Your task to perform on an android device: turn pop-ups off in chrome Image 0: 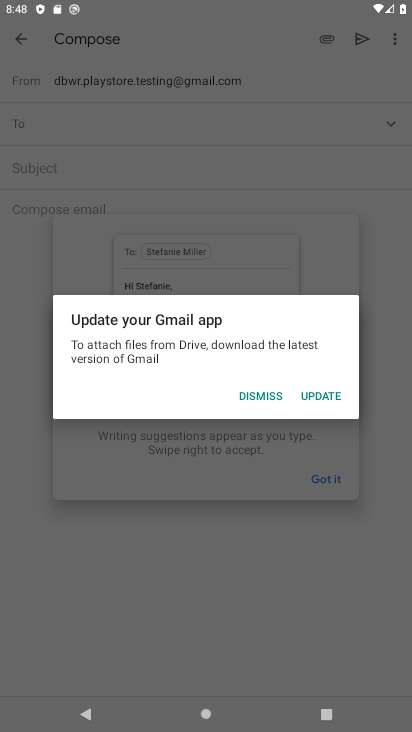
Step 0: press home button
Your task to perform on an android device: turn pop-ups off in chrome Image 1: 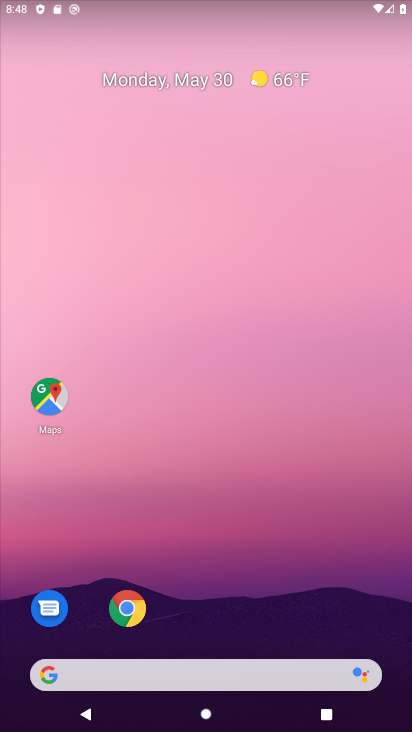
Step 1: click (127, 612)
Your task to perform on an android device: turn pop-ups off in chrome Image 2: 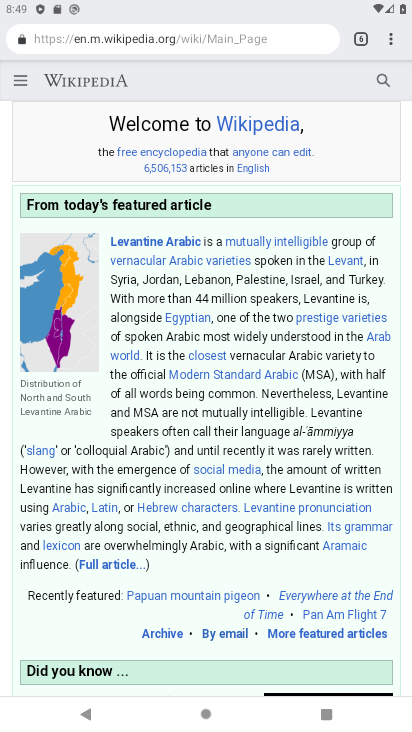
Step 2: click (386, 45)
Your task to perform on an android device: turn pop-ups off in chrome Image 3: 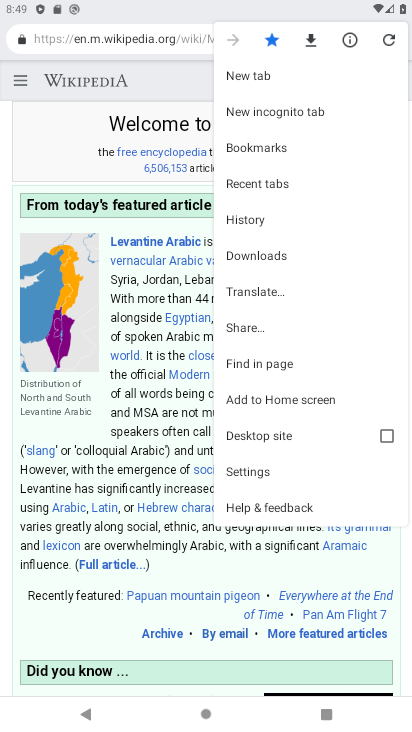
Step 3: click (254, 467)
Your task to perform on an android device: turn pop-ups off in chrome Image 4: 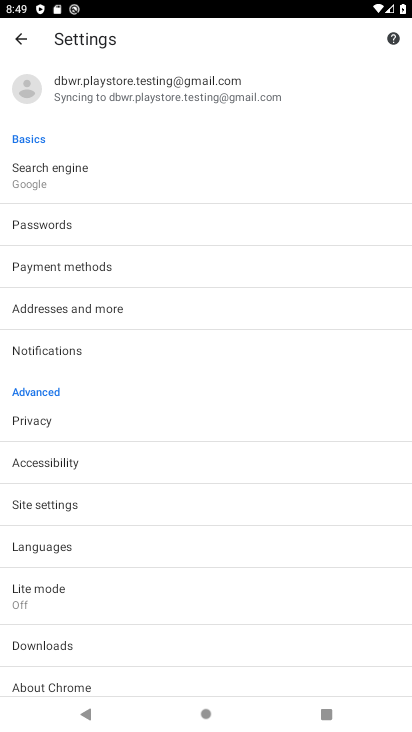
Step 4: drag from (95, 605) to (95, 287)
Your task to perform on an android device: turn pop-ups off in chrome Image 5: 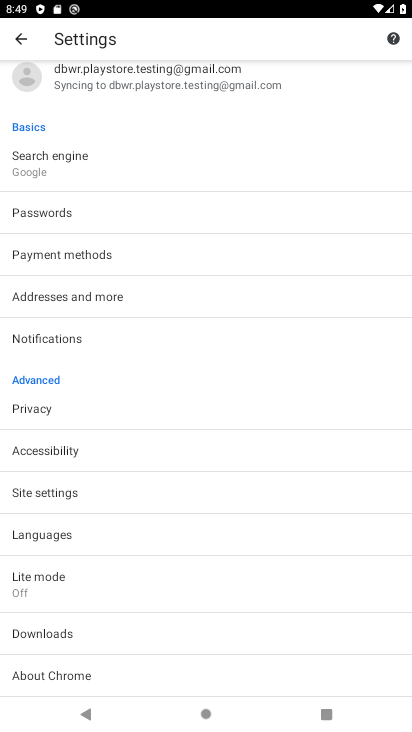
Step 5: click (58, 488)
Your task to perform on an android device: turn pop-ups off in chrome Image 6: 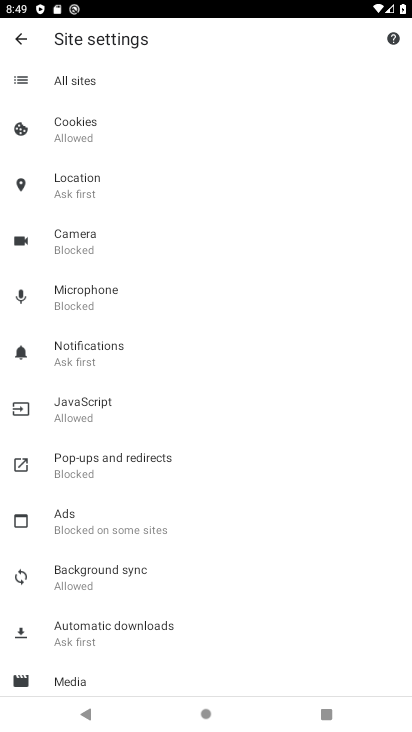
Step 6: click (96, 464)
Your task to perform on an android device: turn pop-ups off in chrome Image 7: 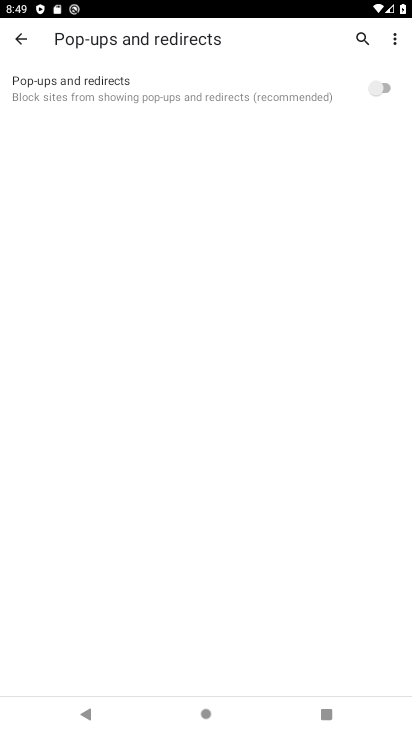
Step 7: task complete